Your task to perform on an android device: open a new tab in the chrome app Image 0: 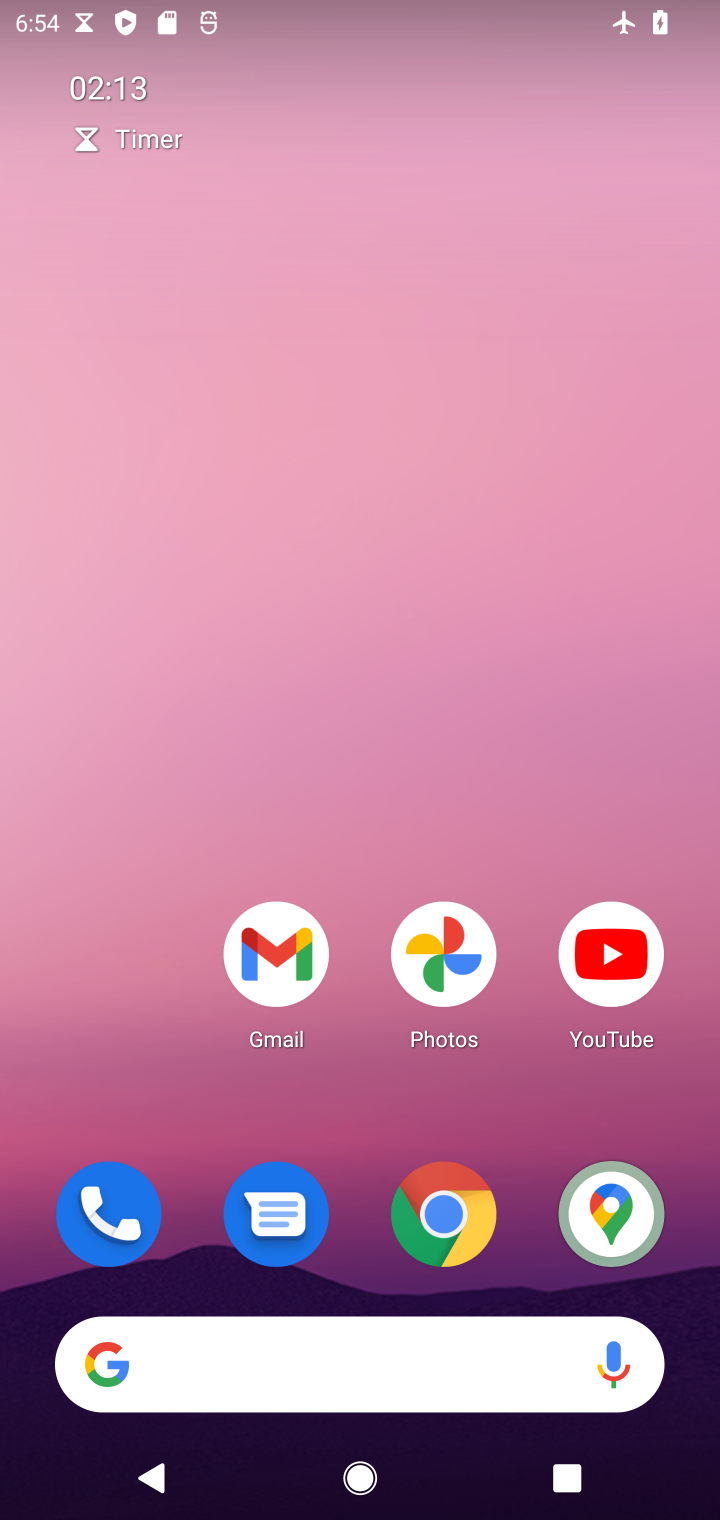
Step 0: click (440, 1215)
Your task to perform on an android device: open a new tab in the chrome app Image 1: 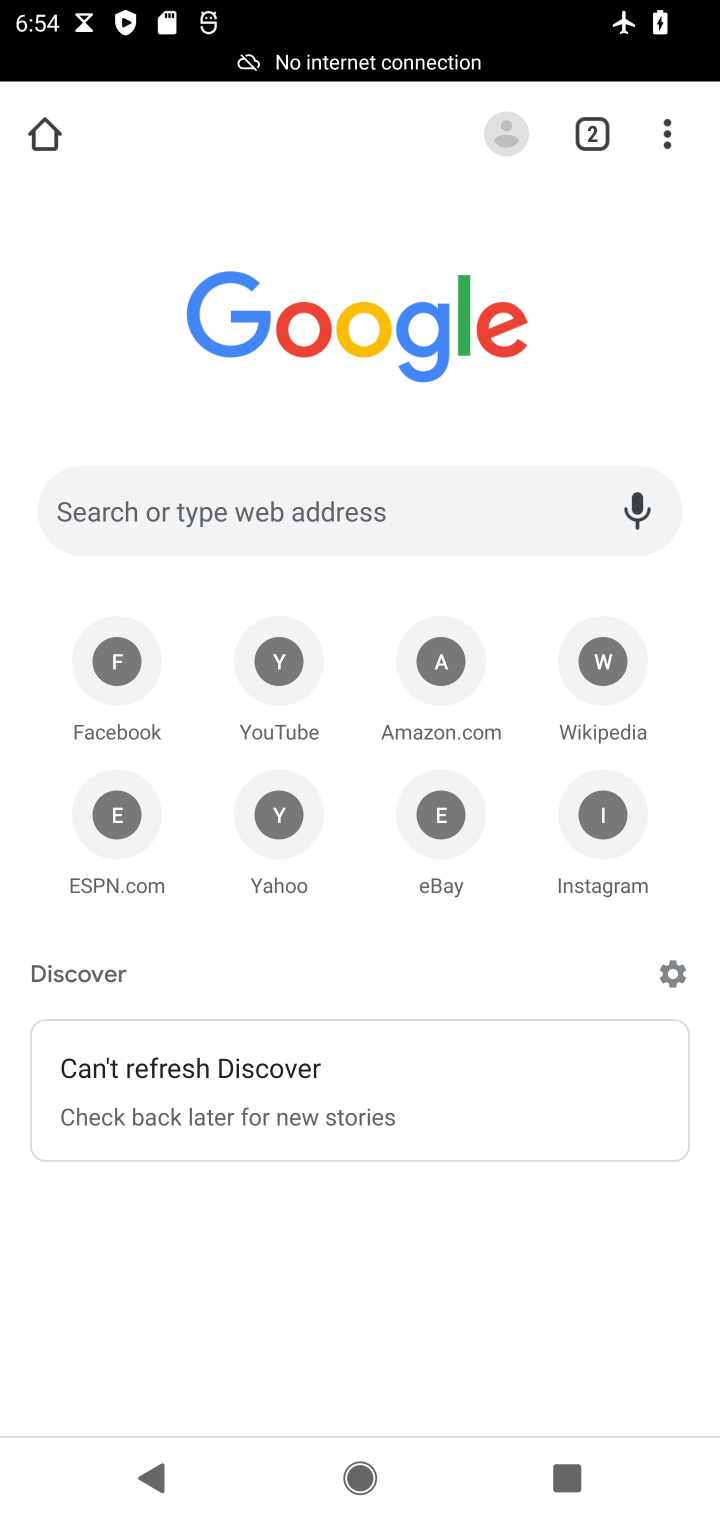
Step 1: click (657, 123)
Your task to perform on an android device: open a new tab in the chrome app Image 2: 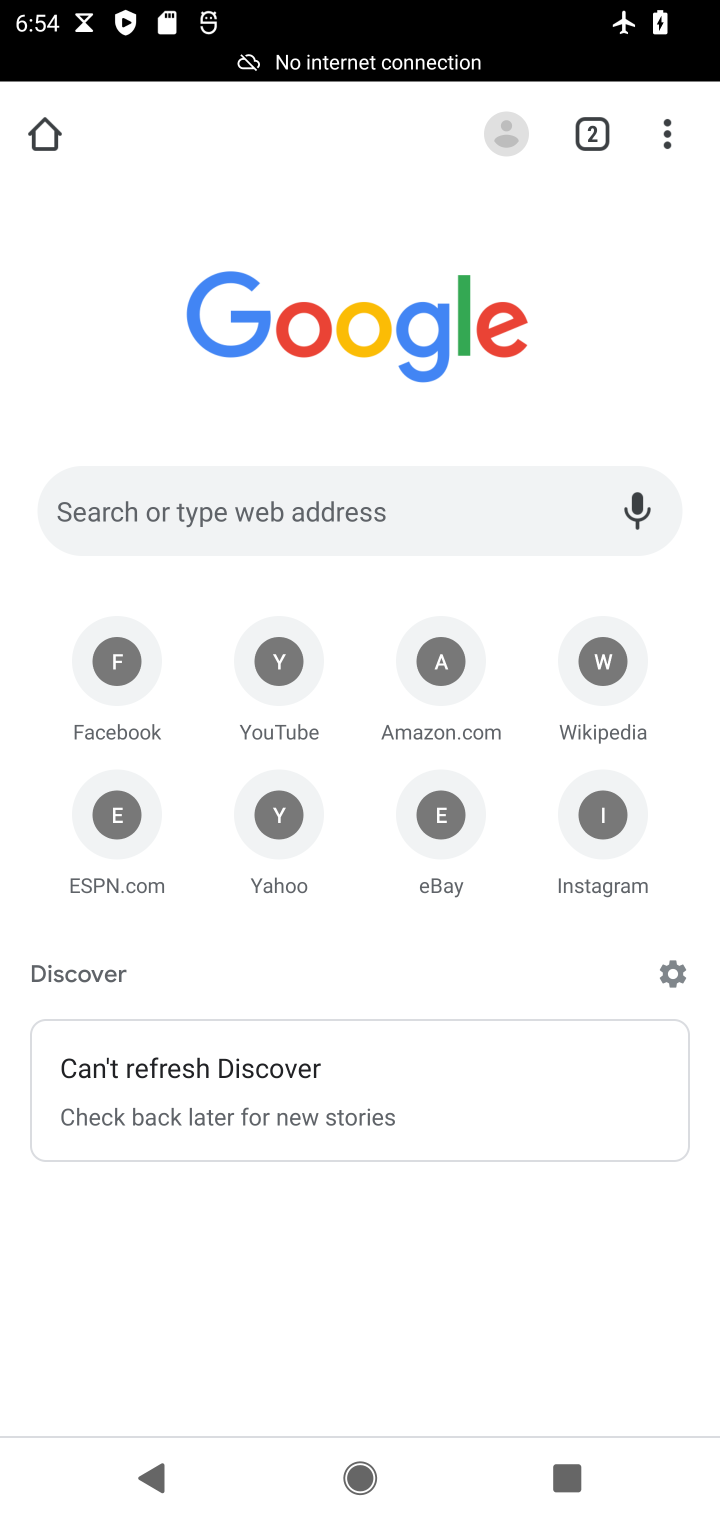
Step 2: click (671, 146)
Your task to perform on an android device: open a new tab in the chrome app Image 3: 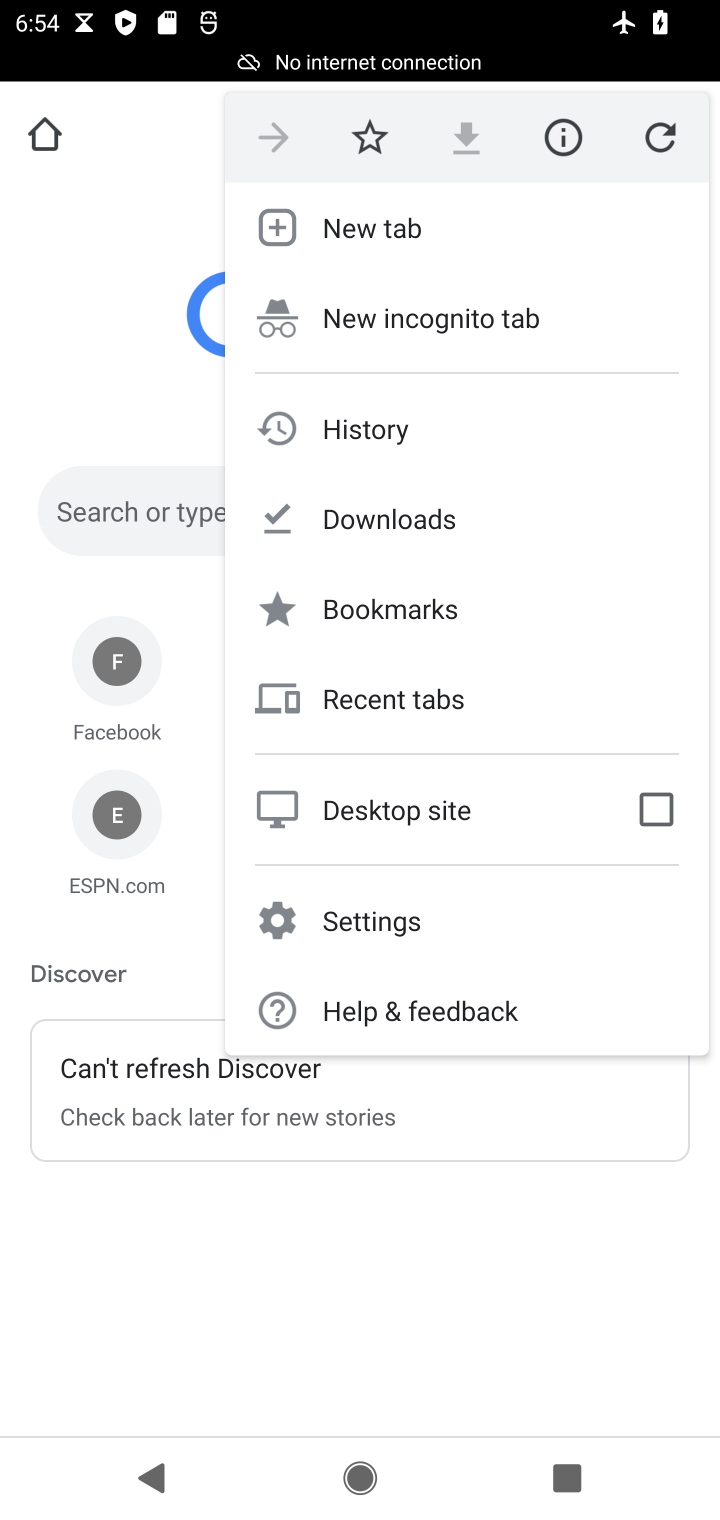
Step 3: click (415, 229)
Your task to perform on an android device: open a new tab in the chrome app Image 4: 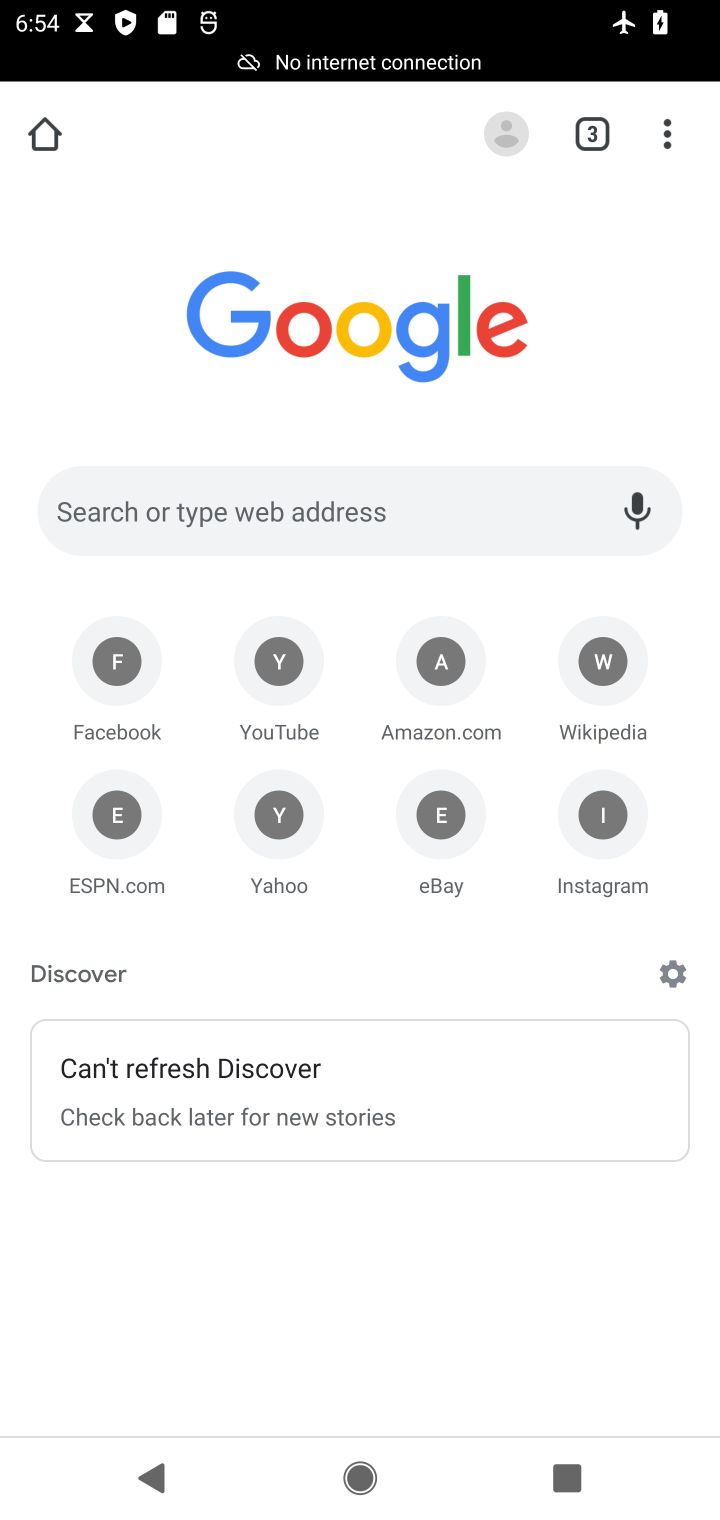
Step 4: task complete